Your task to perform on an android device: Open battery settings Image 0: 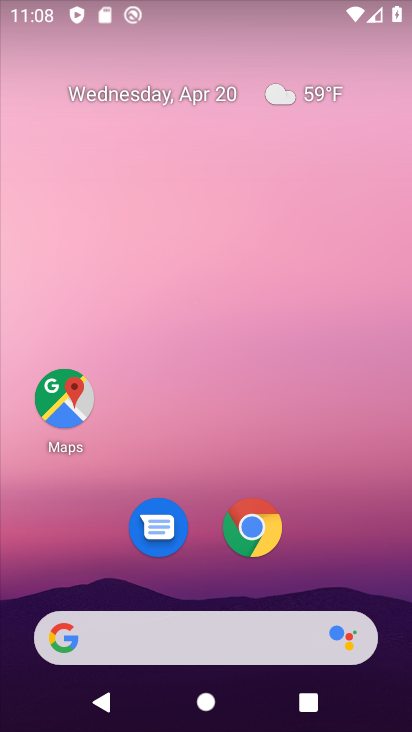
Step 0: click (380, 207)
Your task to perform on an android device: Open battery settings Image 1: 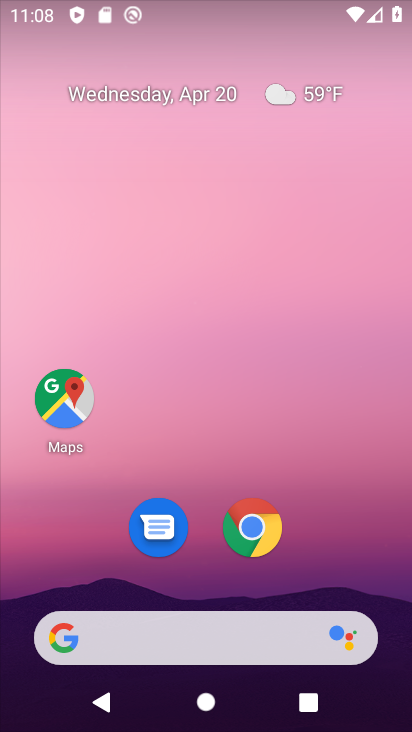
Step 1: drag from (374, 559) to (374, 170)
Your task to perform on an android device: Open battery settings Image 2: 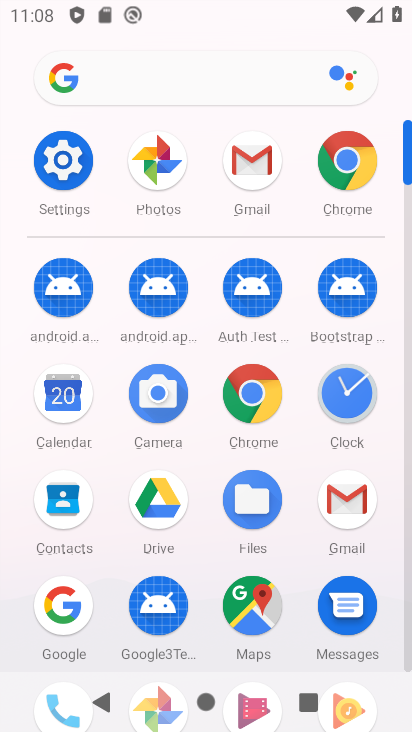
Step 2: click (51, 162)
Your task to perform on an android device: Open battery settings Image 3: 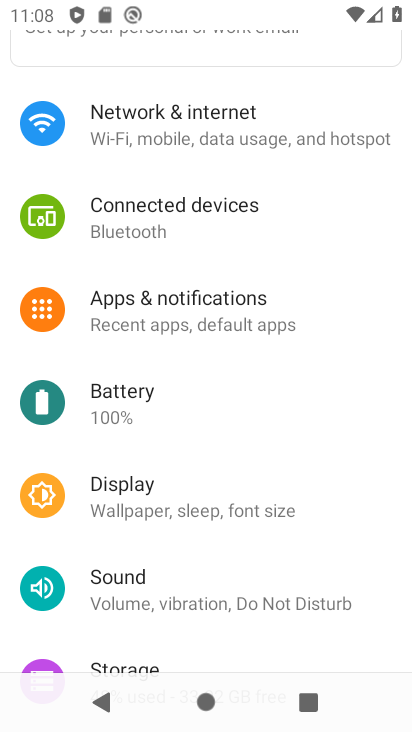
Step 3: click (204, 405)
Your task to perform on an android device: Open battery settings Image 4: 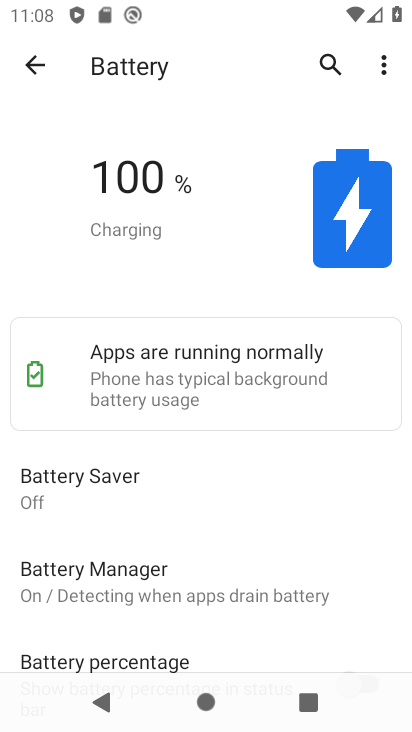
Step 4: task complete